Your task to perform on an android device: change timer sound Image 0: 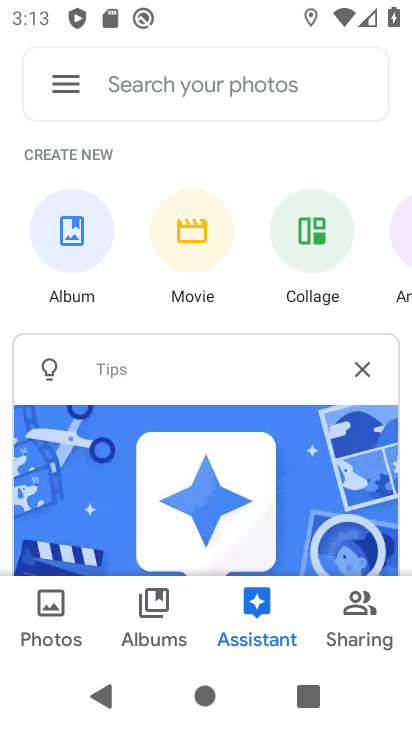
Step 0: press back button
Your task to perform on an android device: change timer sound Image 1: 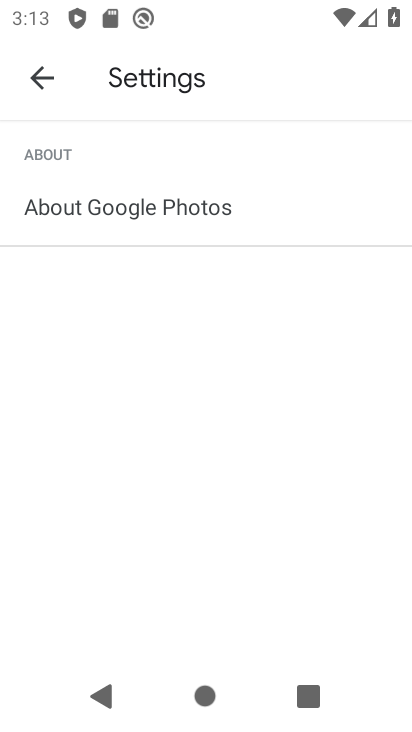
Step 1: press back button
Your task to perform on an android device: change timer sound Image 2: 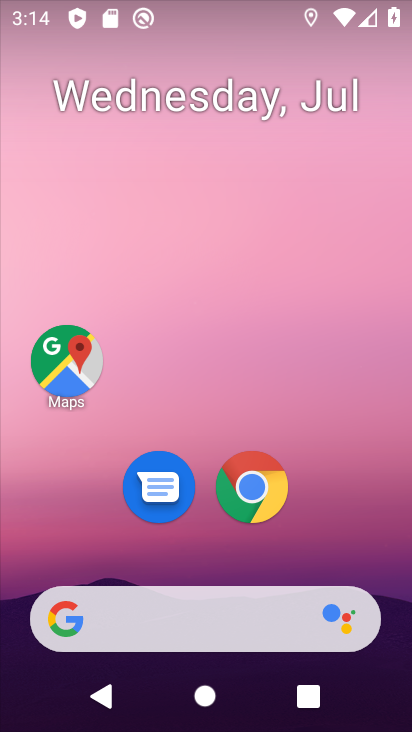
Step 2: drag from (235, 568) to (251, 105)
Your task to perform on an android device: change timer sound Image 3: 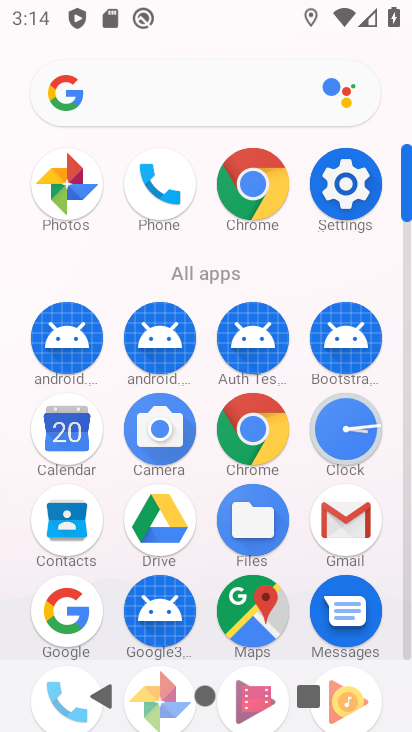
Step 3: click (344, 449)
Your task to perform on an android device: change timer sound Image 4: 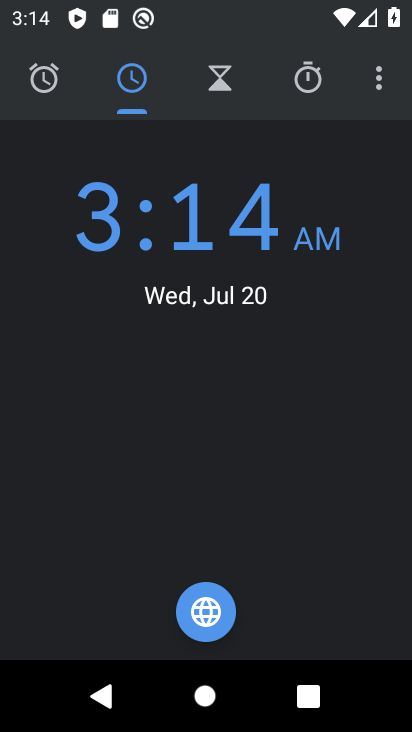
Step 4: click (382, 67)
Your task to perform on an android device: change timer sound Image 5: 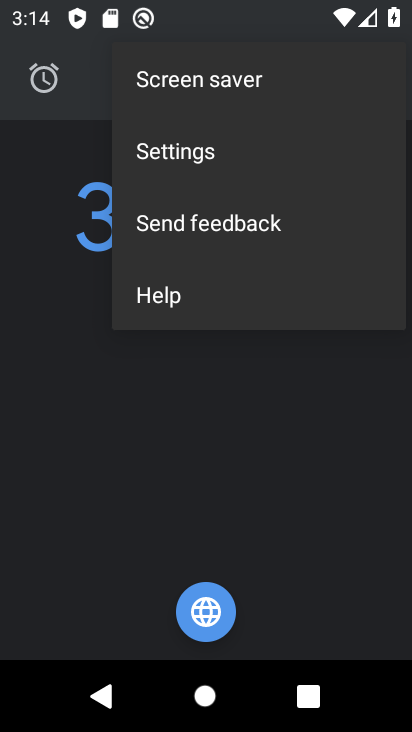
Step 5: click (211, 141)
Your task to perform on an android device: change timer sound Image 6: 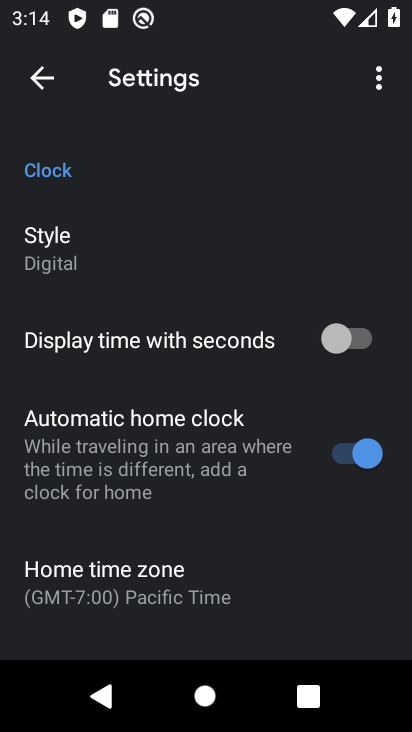
Step 6: drag from (155, 547) to (230, 49)
Your task to perform on an android device: change timer sound Image 7: 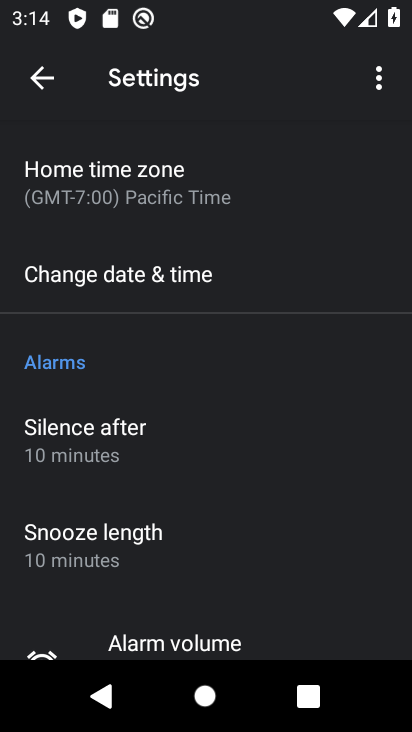
Step 7: drag from (136, 573) to (278, 75)
Your task to perform on an android device: change timer sound Image 8: 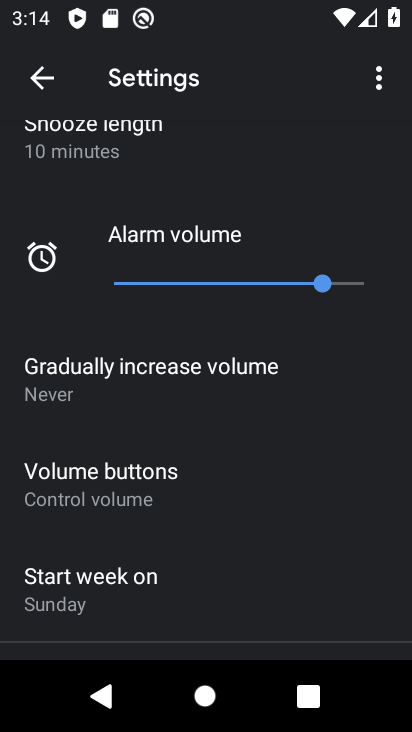
Step 8: drag from (157, 572) to (269, 71)
Your task to perform on an android device: change timer sound Image 9: 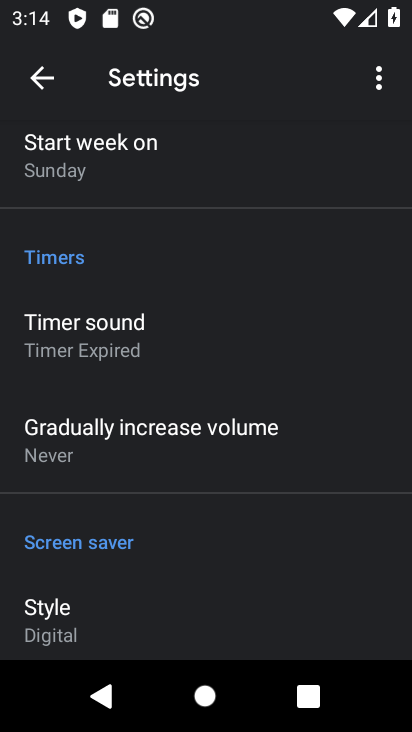
Step 9: click (167, 337)
Your task to perform on an android device: change timer sound Image 10: 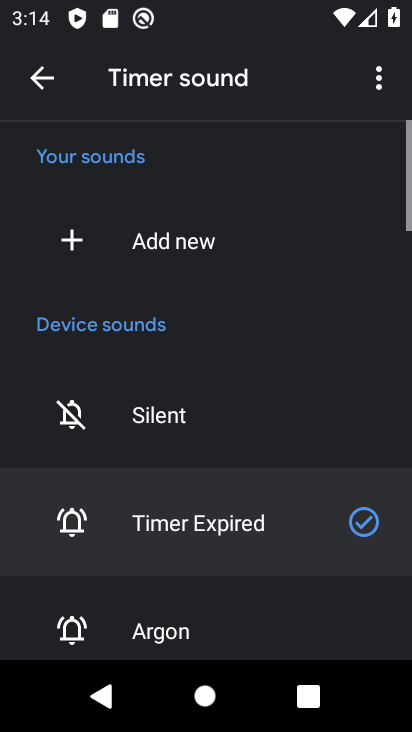
Step 10: click (184, 618)
Your task to perform on an android device: change timer sound Image 11: 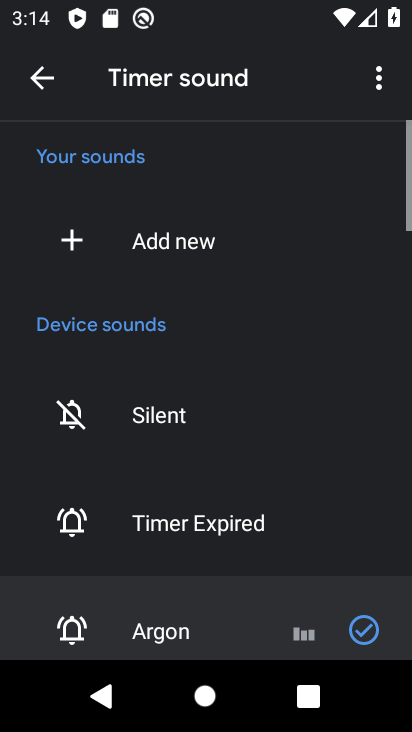
Step 11: task complete